Your task to perform on an android device: What's the weather going to be this weekend? Image 0: 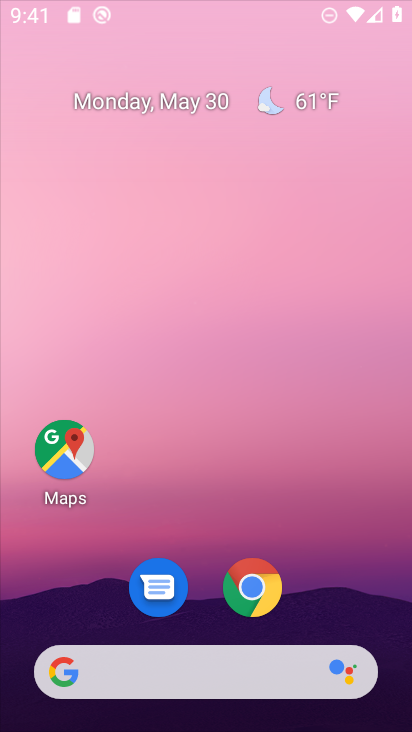
Step 0: click (139, 587)
Your task to perform on an android device: What's the weather going to be this weekend? Image 1: 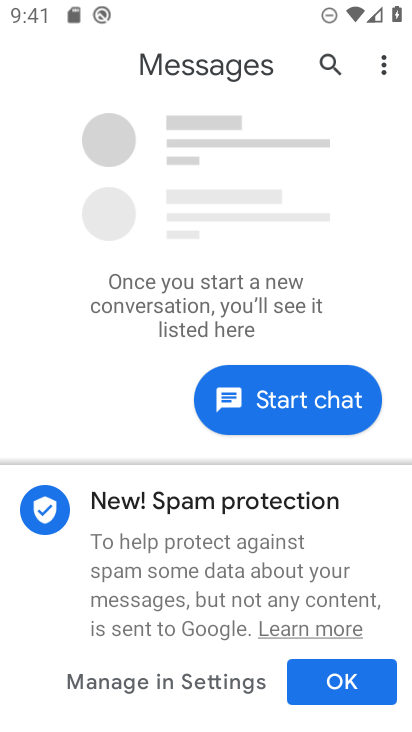
Step 1: press home button
Your task to perform on an android device: What's the weather going to be this weekend? Image 2: 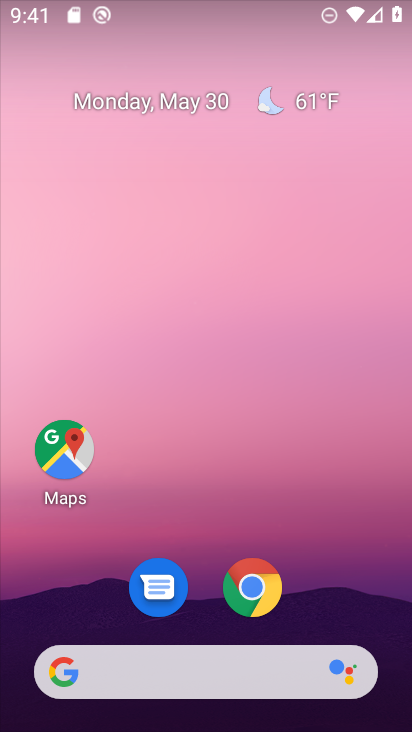
Step 2: drag from (207, 618) to (407, 63)
Your task to perform on an android device: What's the weather going to be this weekend? Image 3: 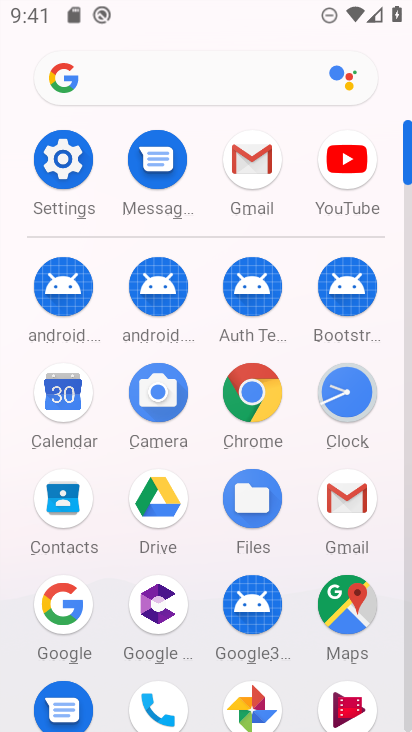
Step 3: click (30, 612)
Your task to perform on an android device: What's the weather going to be this weekend? Image 4: 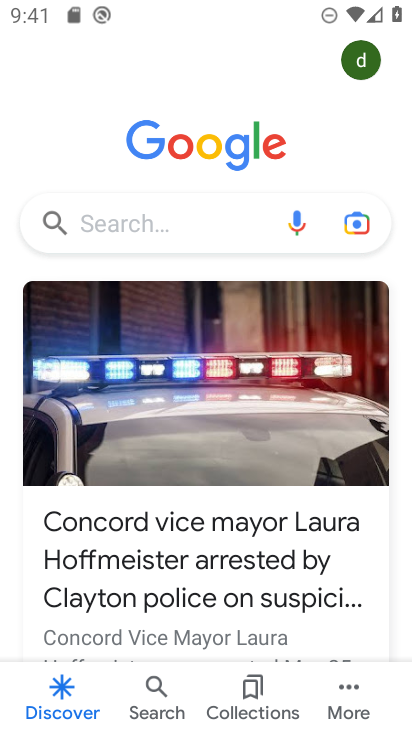
Step 4: click (115, 230)
Your task to perform on an android device: What's the weather going to be this weekend? Image 5: 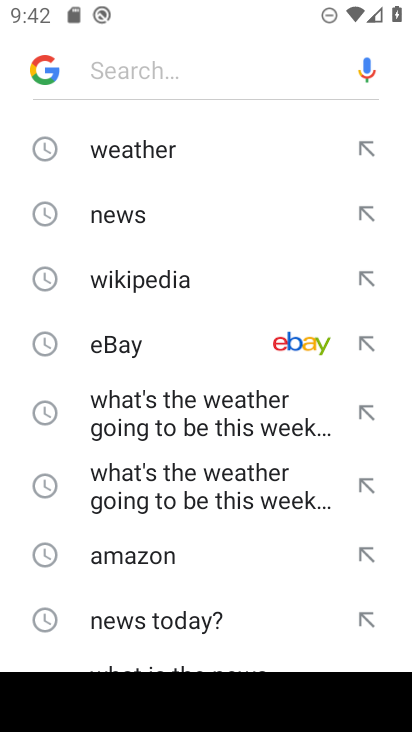
Step 5: click (181, 147)
Your task to perform on an android device: What's the weather going to be this weekend? Image 6: 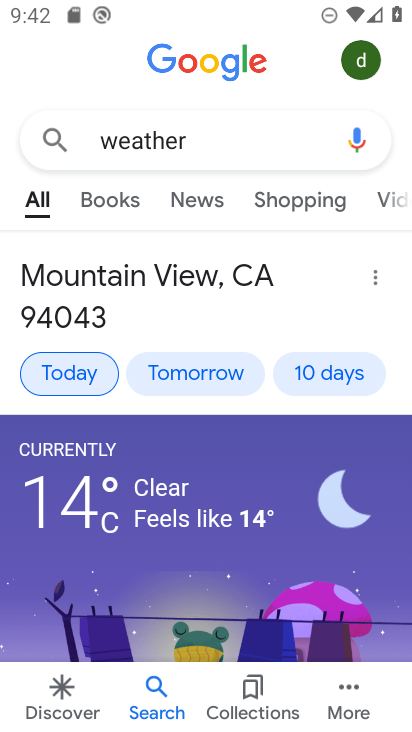
Step 6: click (327, 361)
Your task to perform on an android device: What's the weather going to be this weekend? Image 7: 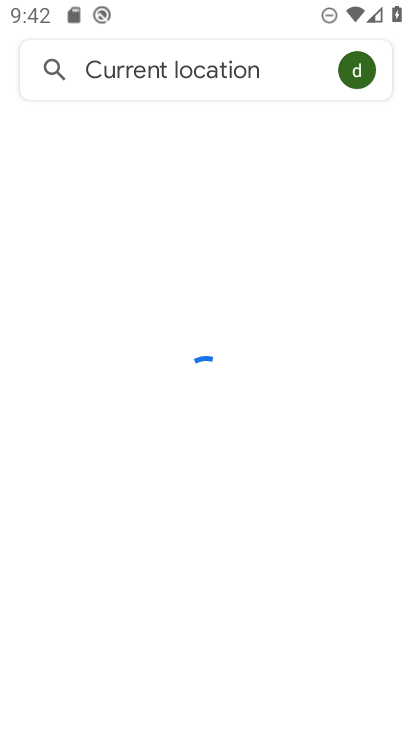
Step 7: task complete